Your task to perform on an android device: turn off wifi Image 0: 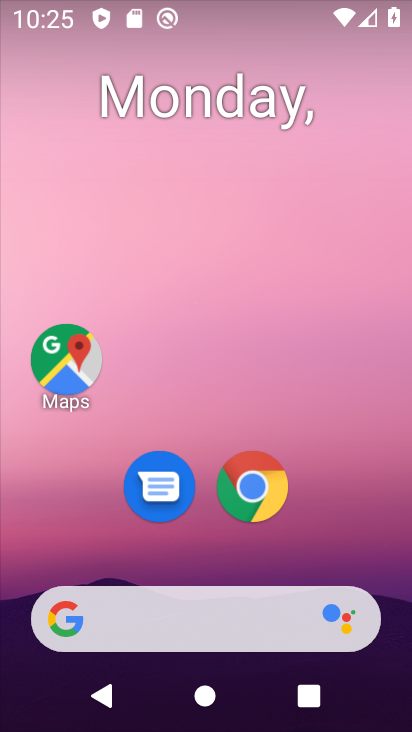
Step 0: drag from (172, 0) to (41, 499)
Your task to perform on an android device: turn off wifi Image 1: 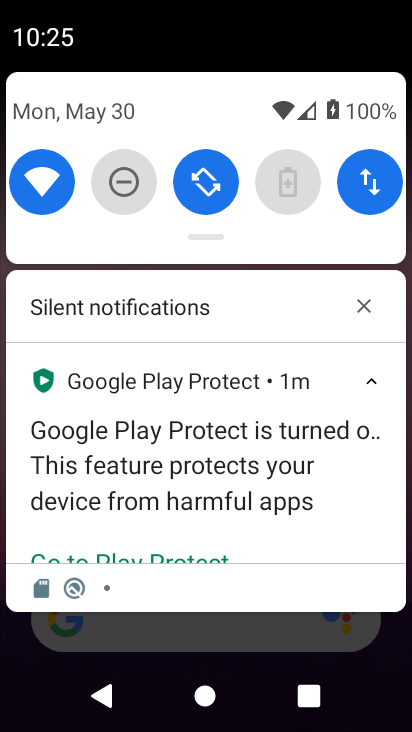
Step 1: click (50, 174)
Your task to perform on an android device: turn off wifi Image 2: 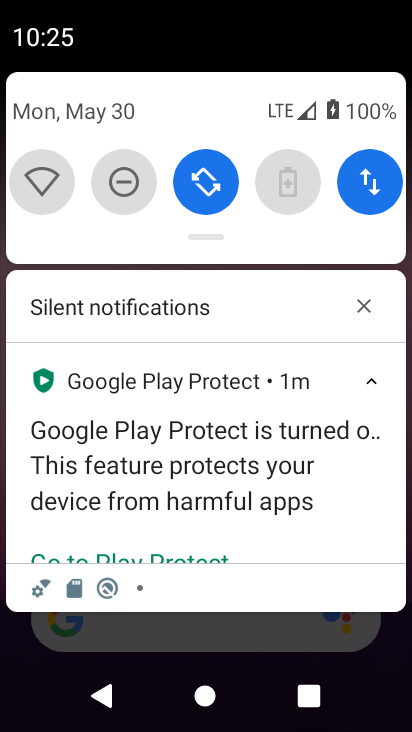
Step 2: task complete